Your task to perform on an android device: Show me productivity apps on the Play Store Image 0: 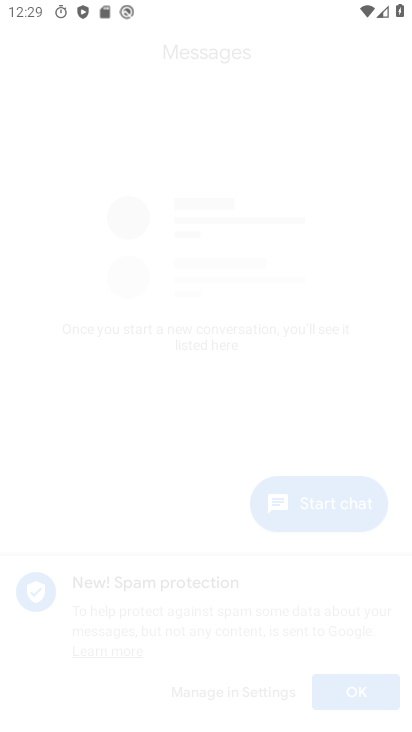
Step 0: drag from (208, 664) to (319, 0)
Your task to perform on an android device: Show me productivity apps on the Play Store Image 1: 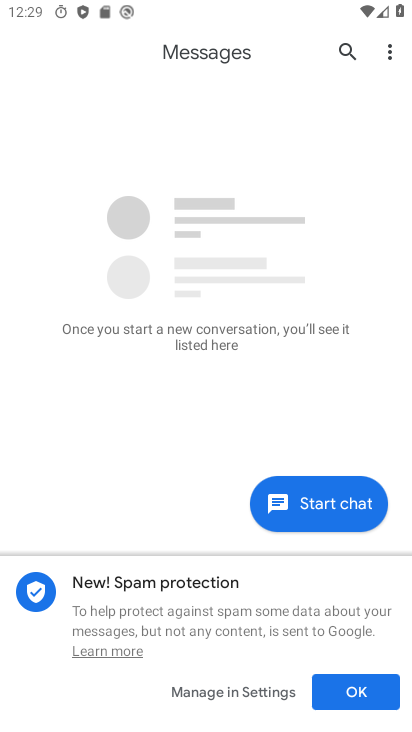
Step 1: press home button
Your task to perform on an android device: Show me productivity apps on the Play Store Image 2: 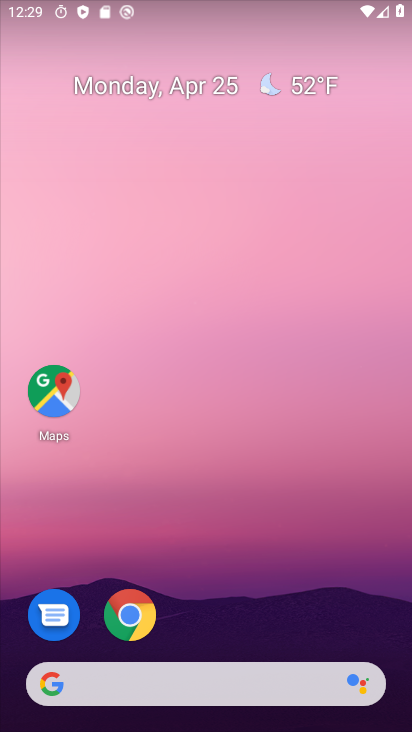
Step 2: drag from (220, 612) to (318, 52)
Your task to perform on an android device: Show me productivity apps on the Play Store Image 3: 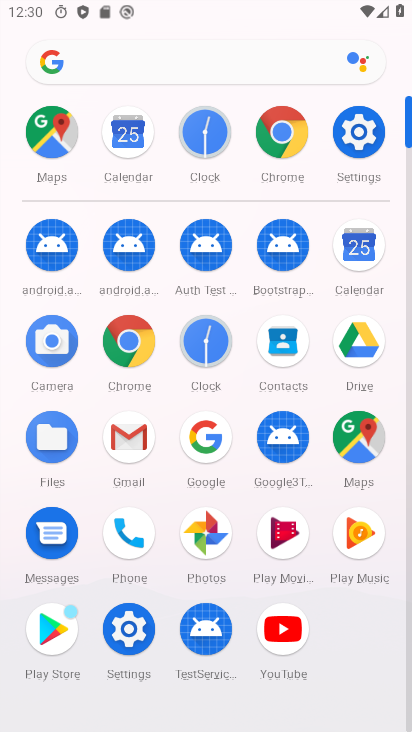
Step 3: click (65, 633)
Your task to perform on an android device: Show me productivity apps on the Play Store Image 4: 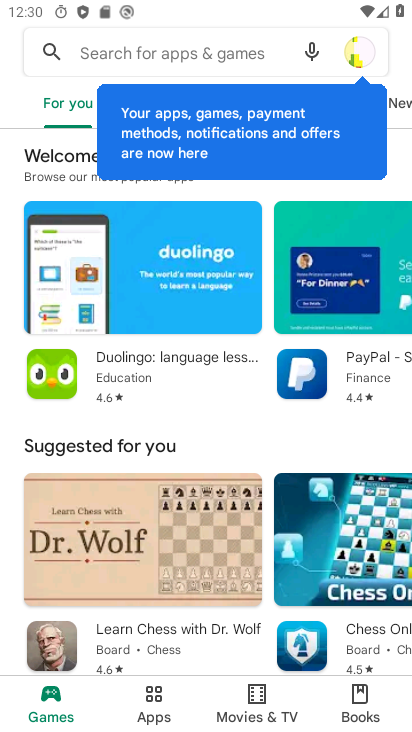
Step 4: click (164, 707)
Your task to perform on an android device: Show me productivity apps on the Play Store Image 5: 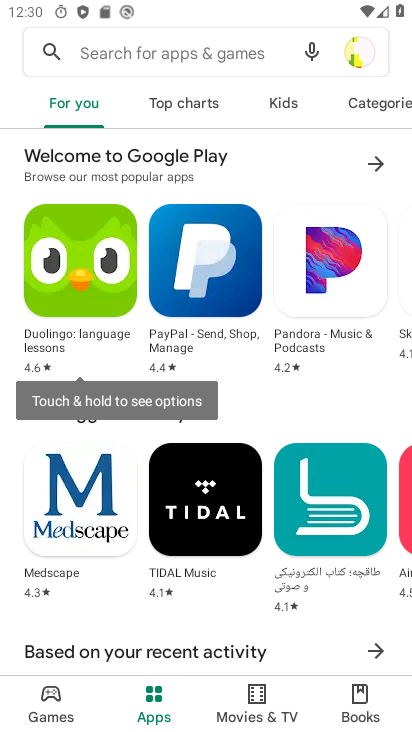
Step 5: click (363, 109)
Your task to perform on an android device: Show me productivity apps on the Play Store Image 6: 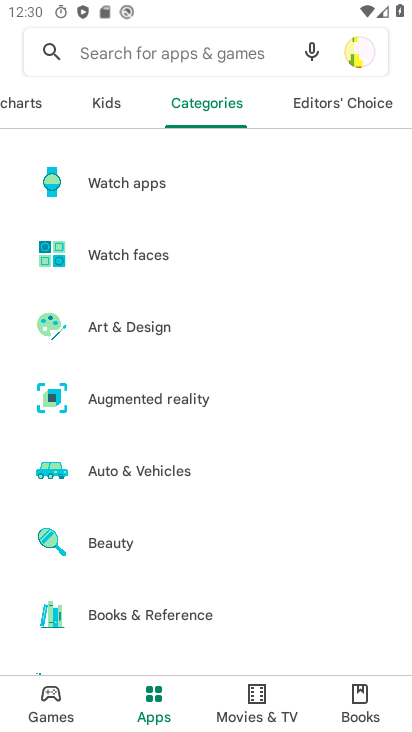
Step 6: drag from (256, 546) to (243, 91)
Your task to perform on an android device: Show me productivity apps on the Play Store Image 7: 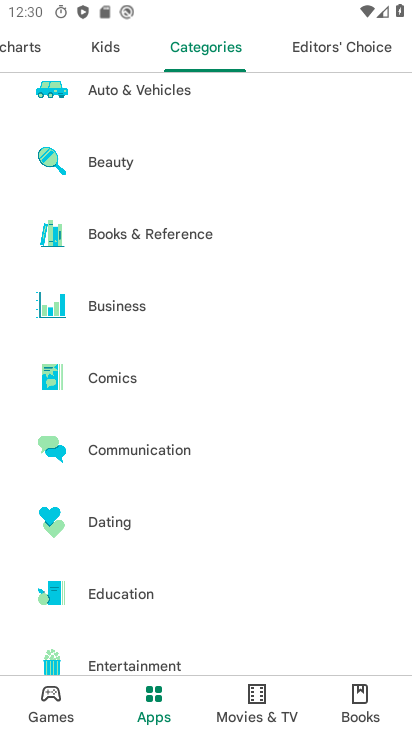
Step 7: drag from (209, 608) to (208, 144)
Your task to perform on an android device: Show me productivity apps on the Play Store Image 8: 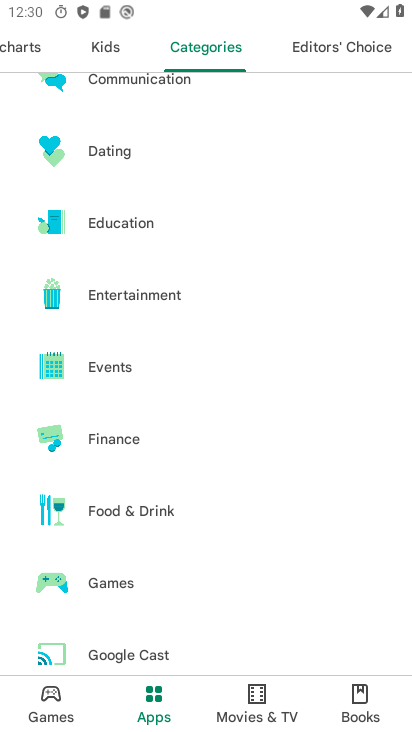
Step 8: drag from (223, 614) to (218, 79)
Your task to perform on an android device: Show me productivity apps on the Play Store Image 9: 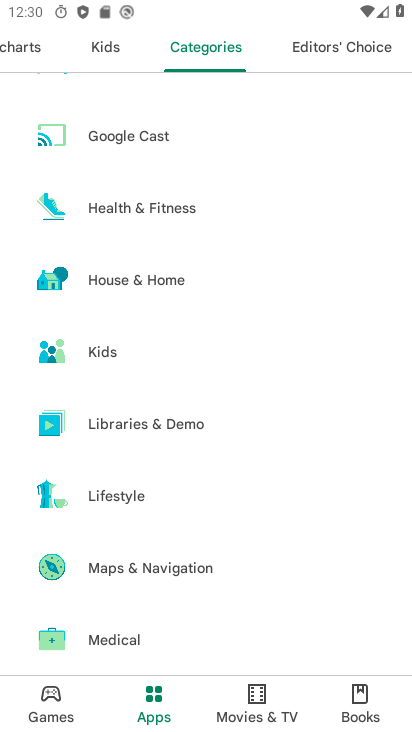
Step 9: drag from (231, 581) to (209, 55)
Your task to perform on an android device: Show me productivity apps on the Play Store Image 10: 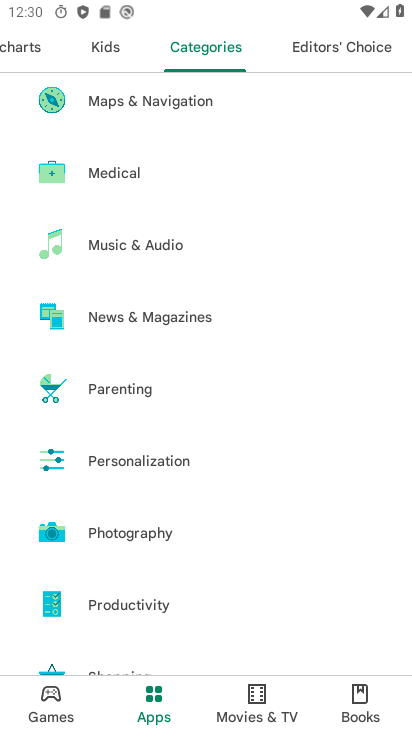
Step 10: click (166, 601)
Your task to perform on an android device: Show me productivity apps on the Play Store Image 11: 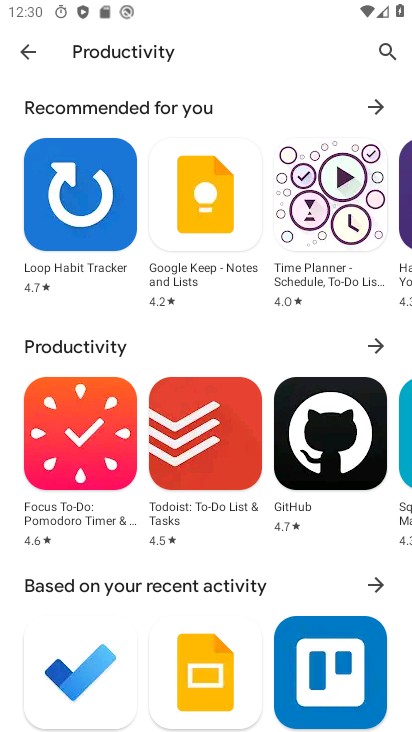
Step 11: task complete